Your task to perform on an android device: turn off improve location accuracy Image 0: 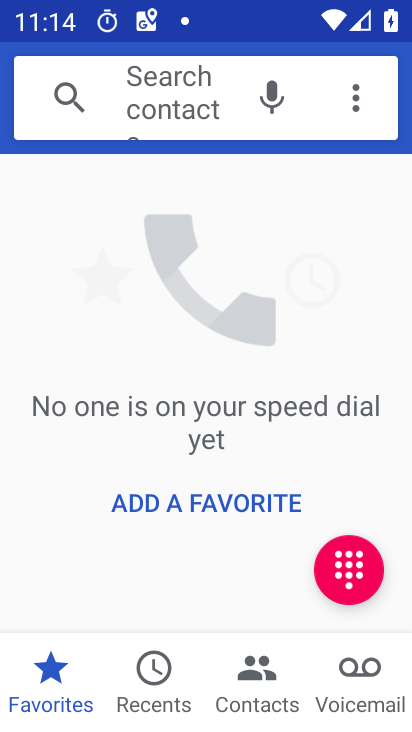
Step 0: press home button
Your task to perform on an android device: turn off improve location accuracy Image 1: 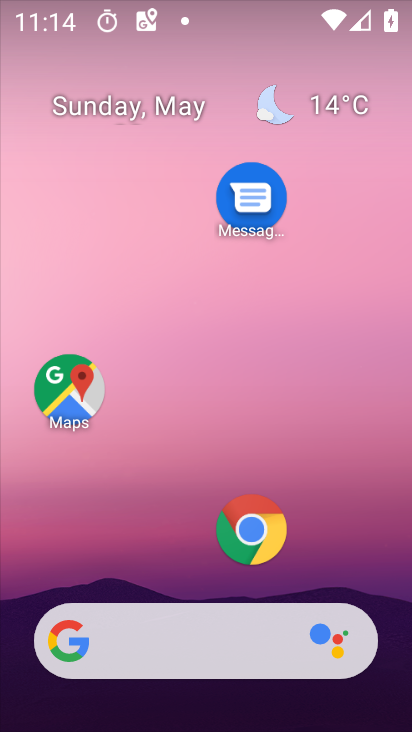
Step 1: drag from (157, 513) to (231, 12)
Your task to perform on an android device: turn off improve location accuracy Image 2: 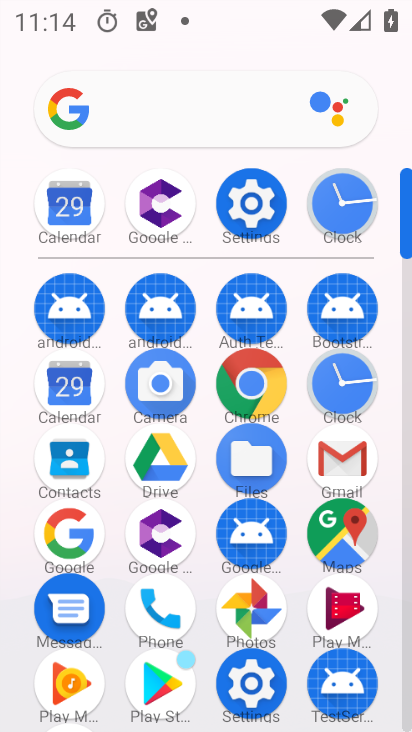
Step 2: click (266, 221)
Your task to perform on an android device: turn off improve location accuracy Image 3: 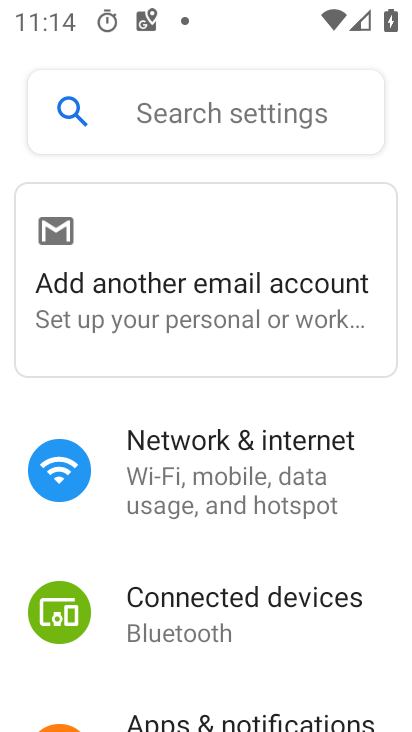
Step 3: drag from (288, 630) to (380, 1)
Your task to perform on an android device: turn off improve location accuracy Image 4: 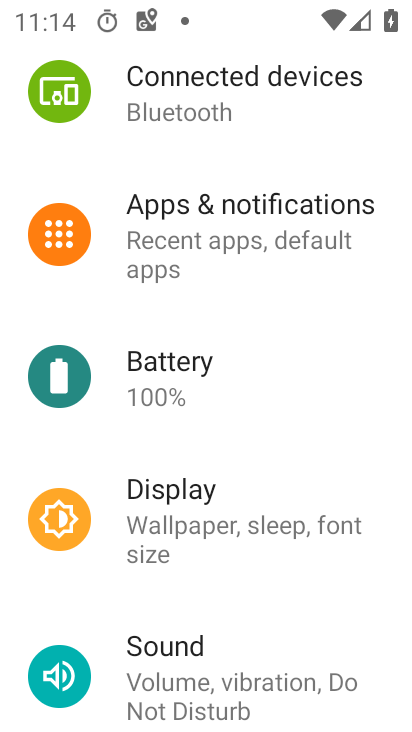
Step 4: drag from (237, 588) to (303, 127)
Your task to perform on an android device: turn off improve location accuracy Image 5: 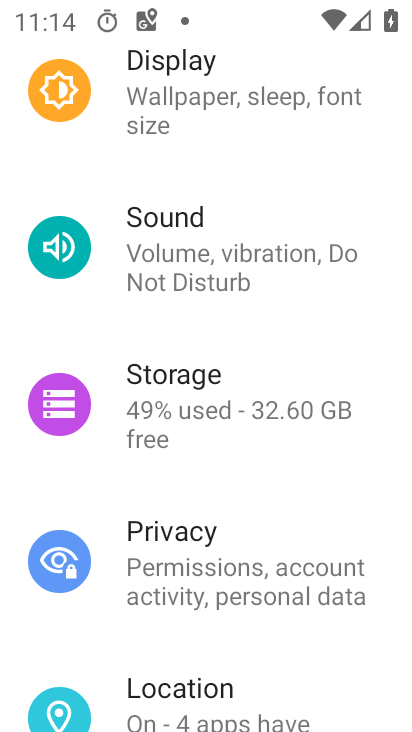
Step 5: click (199, 684)
Your task to perform on an android device: turn off improve location accuracy Image 6: 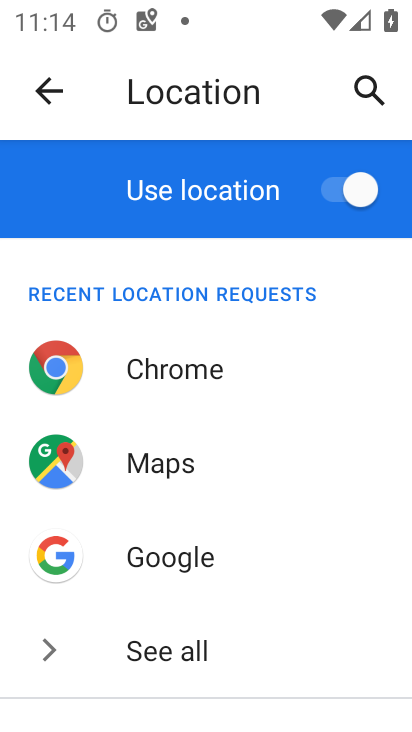
Step 6: drag from (200, 617) to (320, 190)
Your task to perform on an android device: turn off improve location accuracy Image 7: 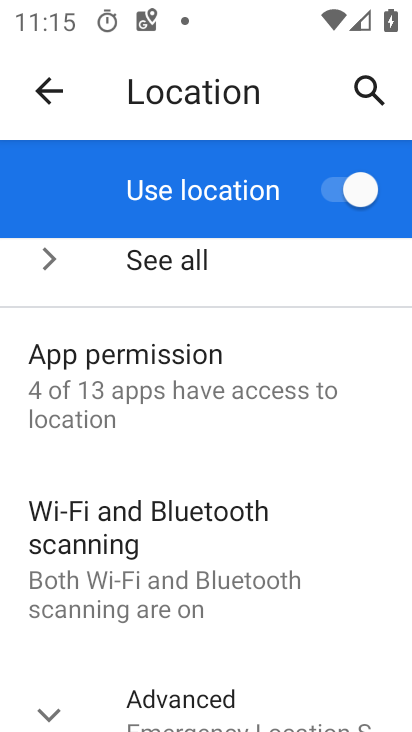
Step 7: drag from (246, 607) to (312, 210)
Your task to perform on an android device: turn off improve location accuracy Image 8: 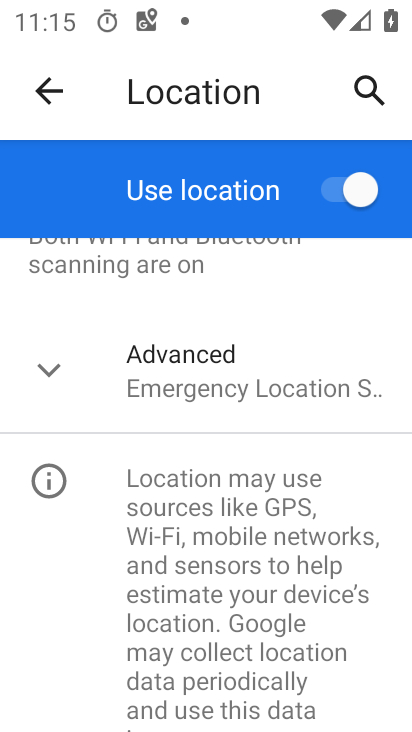
Step 8: click (232, 394)
Your task to perform on an android device: turn off improve location accuracy Image 9: 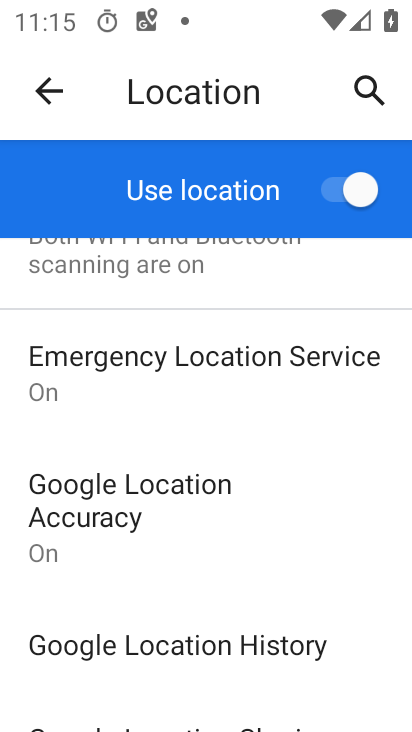
Step 9: click (186, 514)
Your task to perform on an android device: turn off improve location accuracy Image 10: 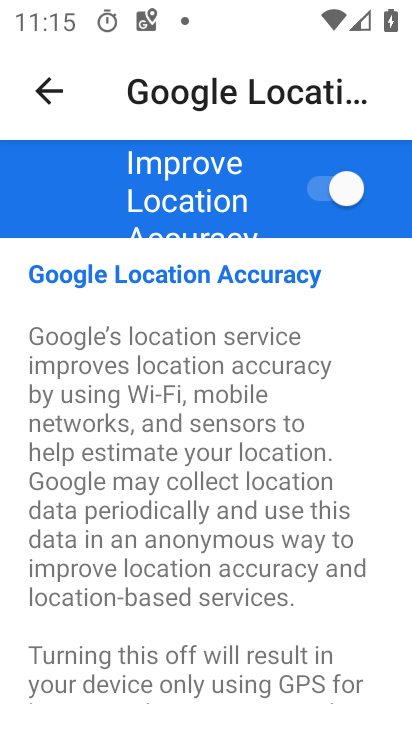
Step 10: click (287, 187)
Your task to perform on an android device: turn off improve location accuracy Image 11: 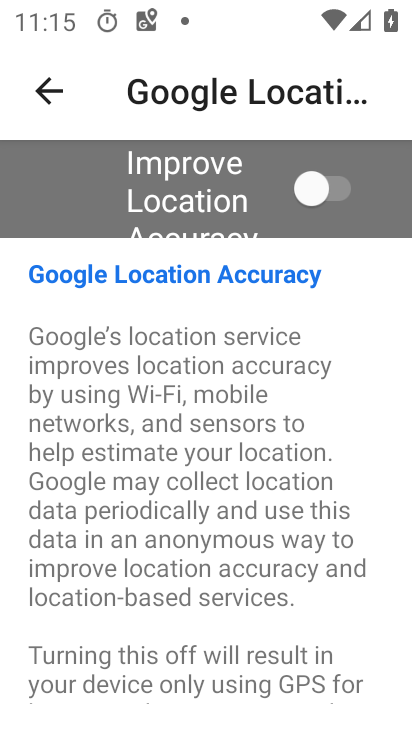
Step 11: task complete